Your task to perform on an android device: open chrome and create a bookmark for the current page Image 0: 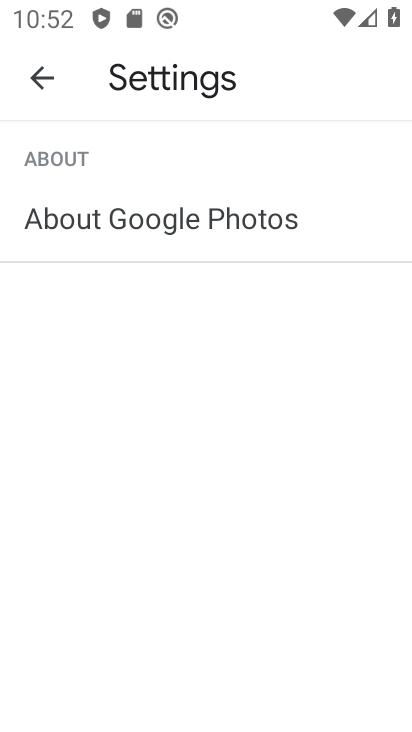
Step 0: press home button
Your task to perform on an android device: open chrome and create a bookmark for the current page Image 1: 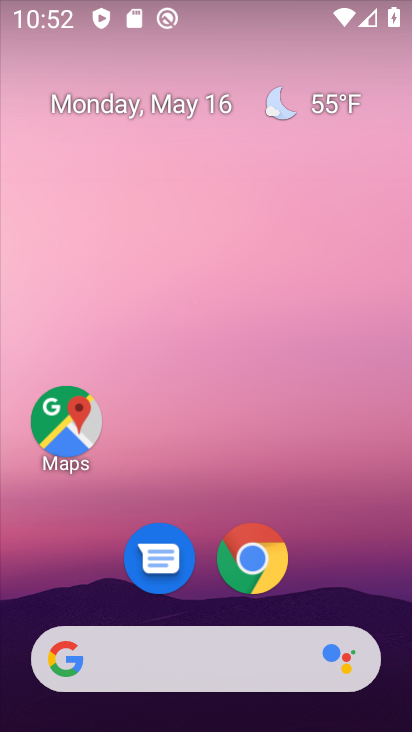
Step 1: click (248, 558)
Your task to perform on an android device: open chrome and create a bookmark for the current page Image 2: 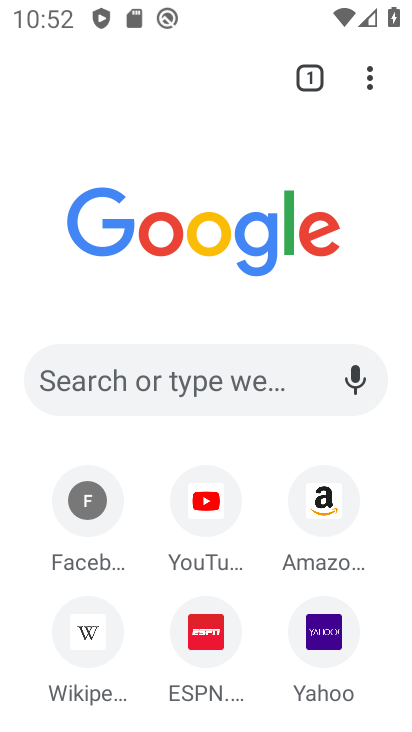
Step 2: click (361, 86)
Your task to perform on an android device: open chrome and create a bookmark for the current page Image 3: 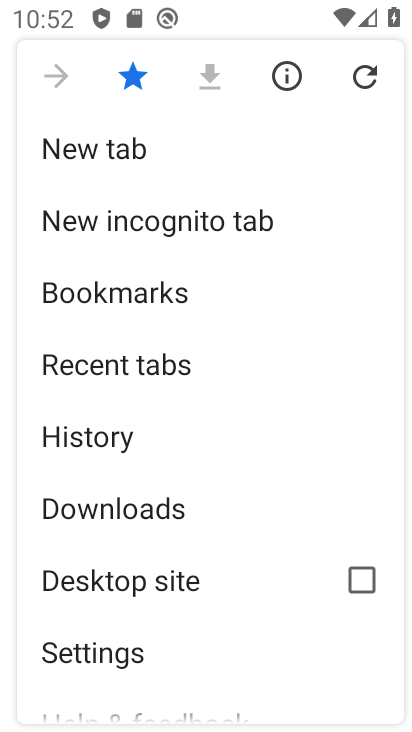
Step 3: task complete